Your task to perform on an android device: clear all cookies in the chrome app Image 0: 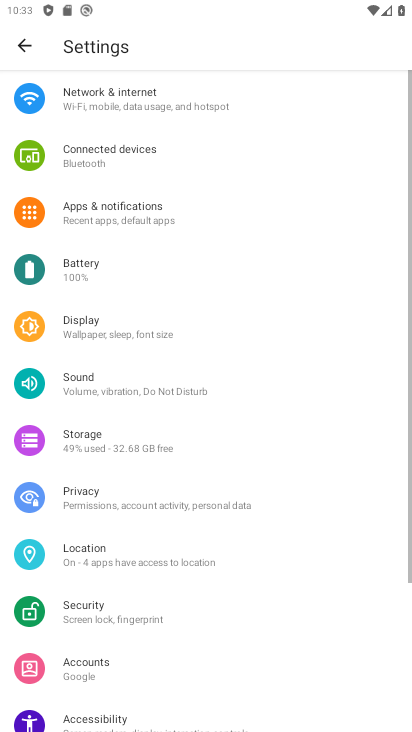
Step 0: press home button
Your task to perform on an android device: clear all cookies in the chrome app Image 1: 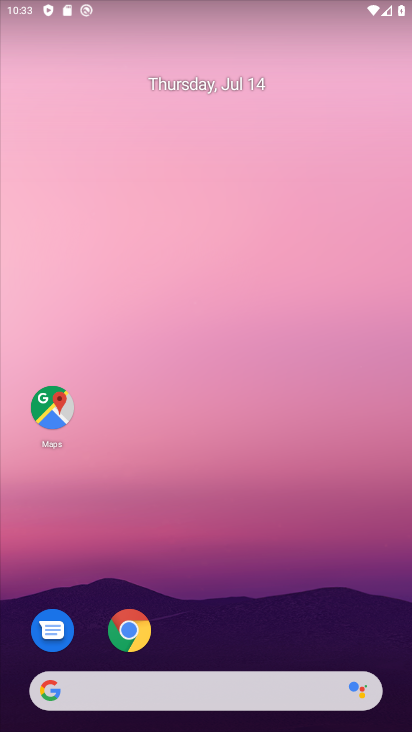
Step 1: drag from (213, 635) to (212, 185)
Your task to perform on an android device: clear all cookies in the chrome app Image 2: 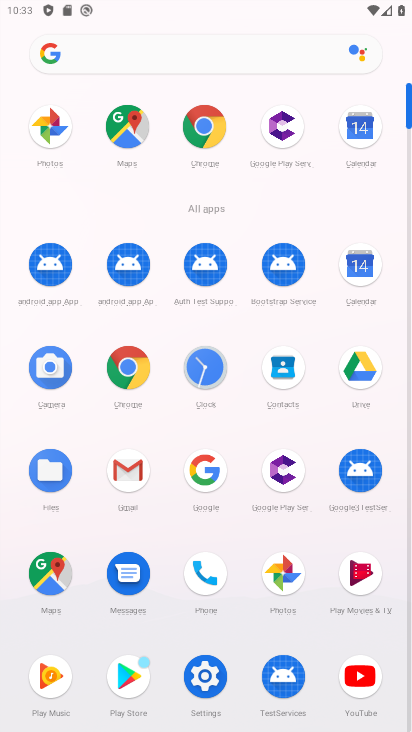
Step 2: click (120, 363)
Your task to perform on an android device: clear all cookies in the chrome app Image 3: 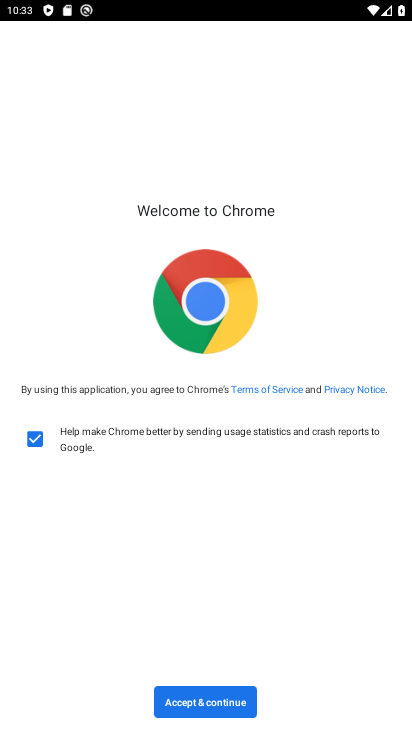
Step 3: click (189, 690)
Your task to perform on an android device: clear all cookies in the chrome app Image 4: 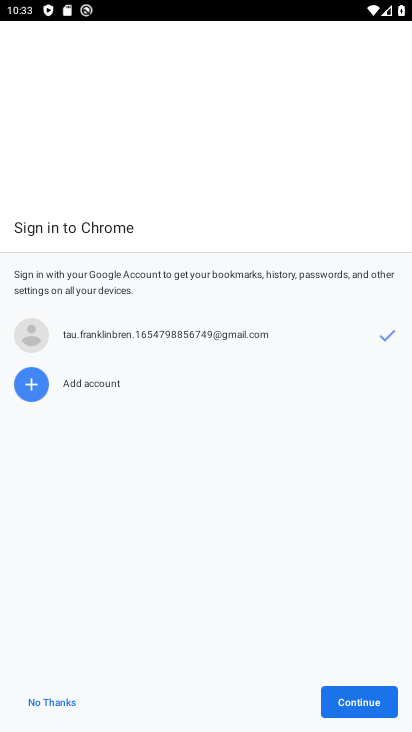
Step 4: click (199, 697)
Your task to perform on an android device: clear all cookies in the chrome app Image 5: 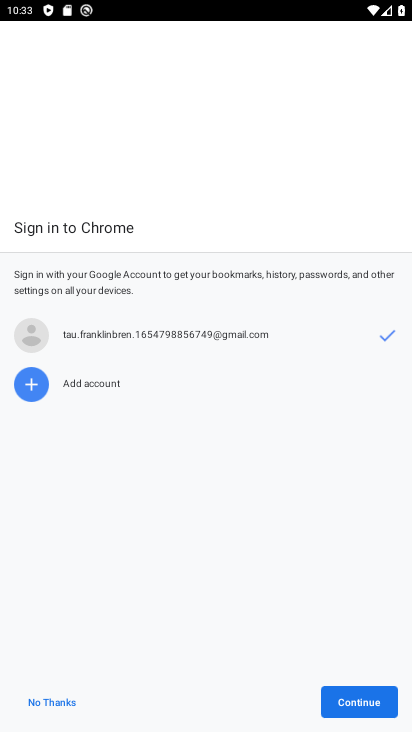
Step 5: click (347, 693)
Your task to perform on an android device: clear all cookies in the chrome app Image 6: 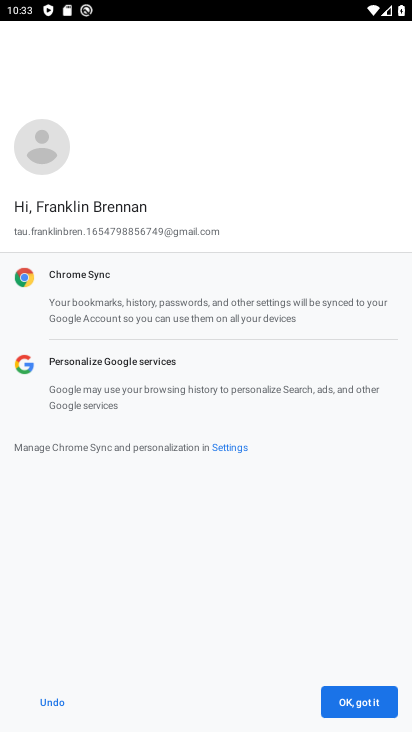
Step 6: click (356, 710)
Your task to perform on an android device: clear all cookies in the chrome app Image 7: 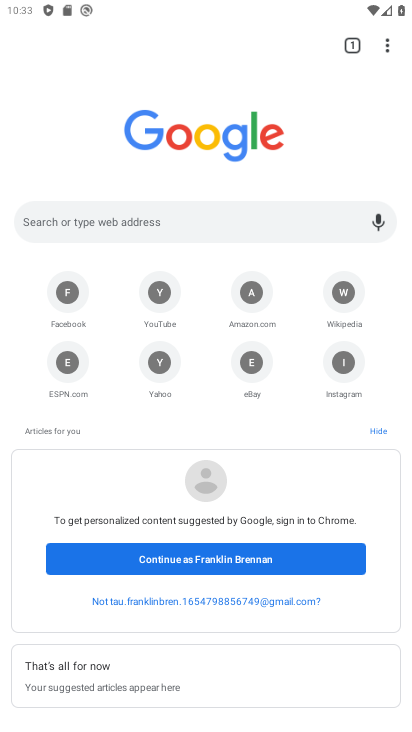
Step 7: click (392, 29)
Your task to perform on an android device: clear all cookies in the chrome app Image 8: 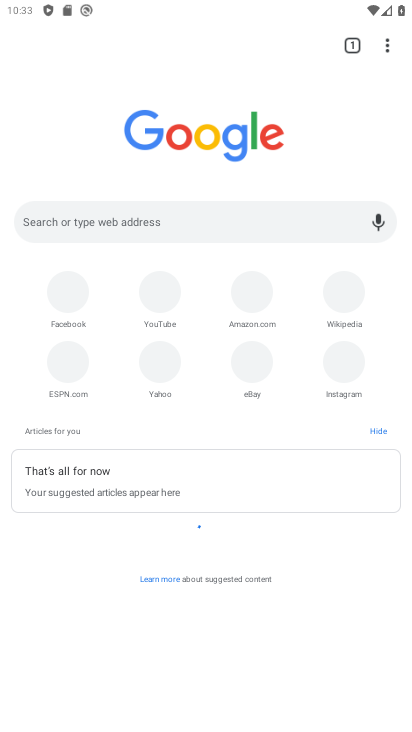
Step 8: click (388, 40)
Your task to perform on an android device: clear all cookies in the chrome app Image 9: 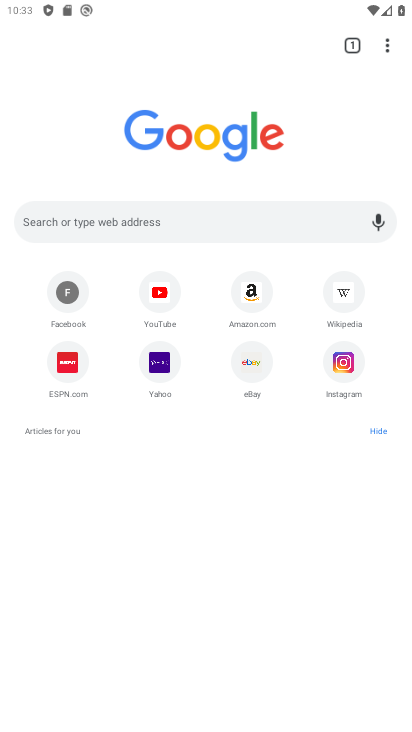
Step 9: click (388, 40)
Your task to perform on an android device: clear all cookies in the chrome app Image 10: 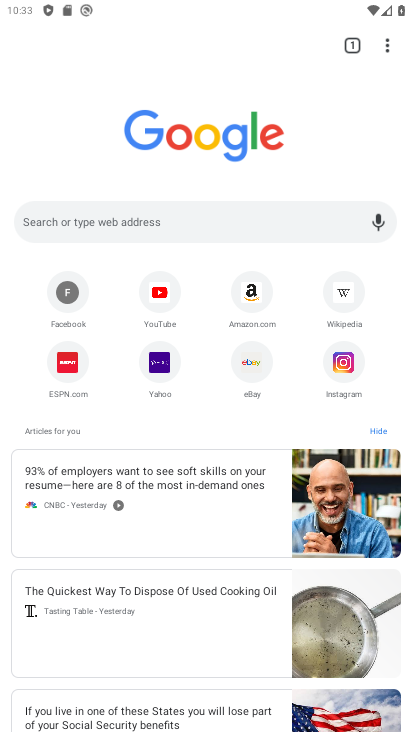
Step 10: click (388, 45)
Your task to perform on an android device: clear all cookies in the chrome app Image 11: 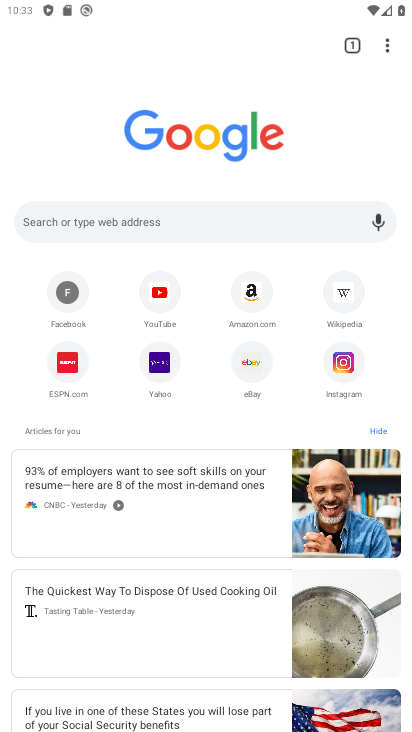
Step 11: click (388, 45)
Your task to perform on an android device: clear all cookies in the chrome app Image 12: 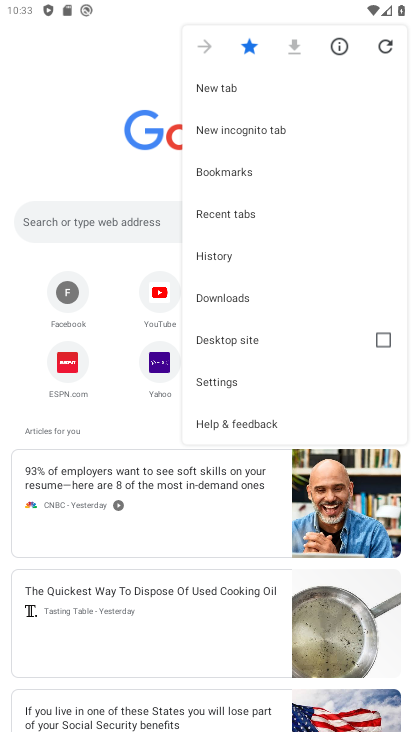
Step 12: click (236, 378)
Your task to perform on an android device: clear all cookies in the chrome app Image 13: 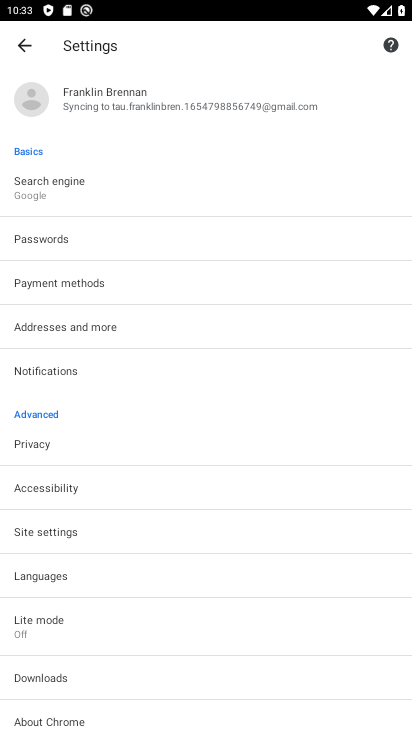
Step 13: click (59, 446)
Your task to perform on an android device: clear all cookies in the chrome app Image 14: 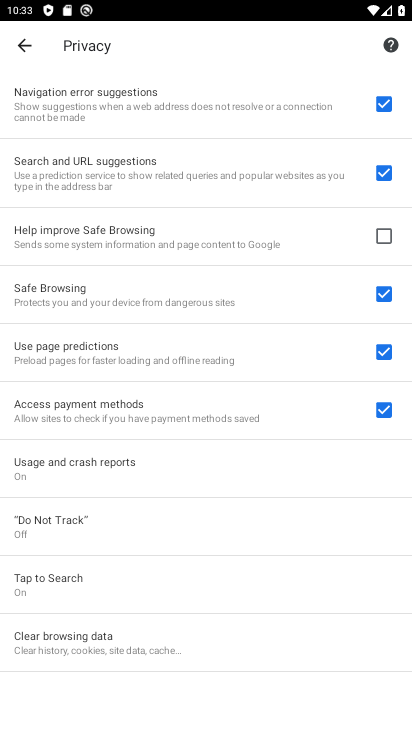
Step 14: click (119, 654)
Your task to perform on an android device: clear all cookies in the chrome app Image 15: 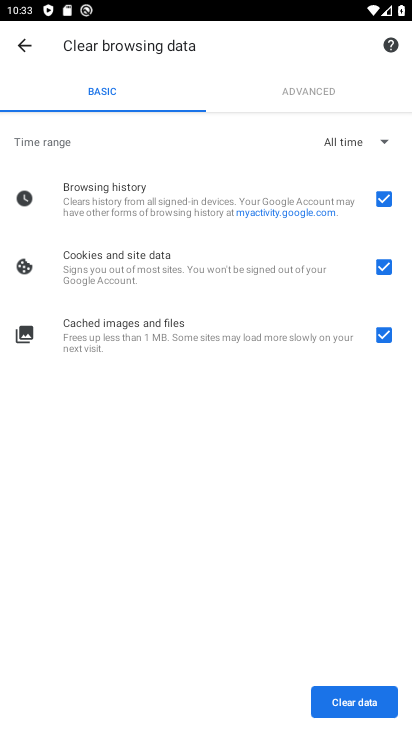
Step 15: click (342, 694)
Your task to perform on an android device: clear all cookies in the chrome app Image 16: 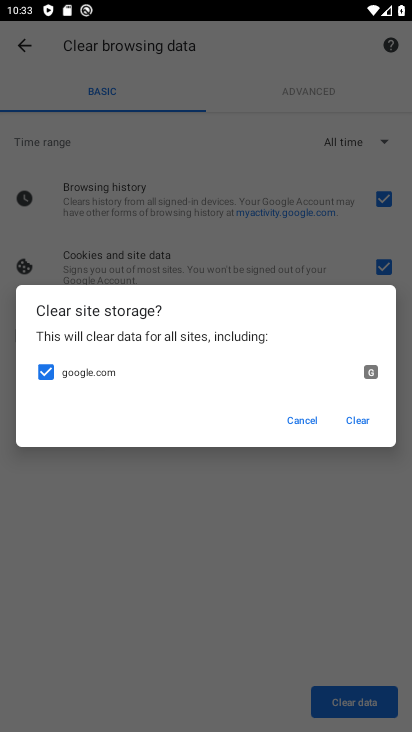
Step 16: click (358, 421)
Your task to perform on an android device: clear all cookies in the chrome app Image 17: 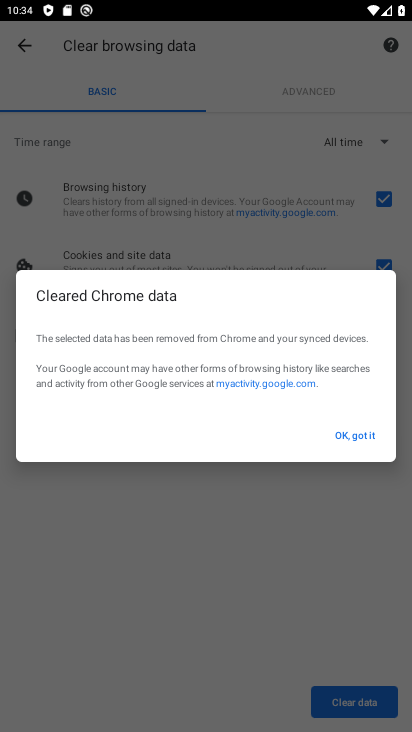
Step 17: click (351, 446)
Your task to perform on an android device: clear all cookies in the chrome app Image 18: 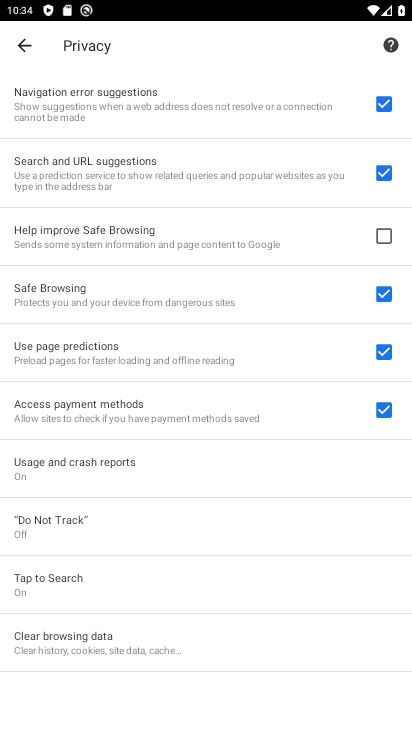
Step 18: click (179, 647)
Your task to perform on an android device: clear all cookies in the chrome app Image 19: 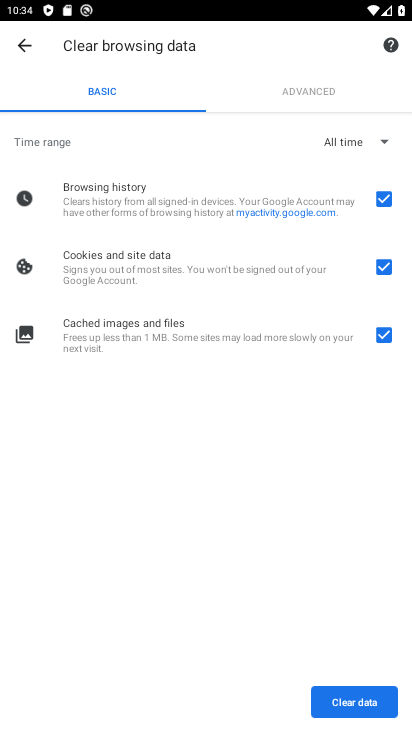
Step 19: click (362, 696)
Your task to perform on an android device: clear all cookies in the chrome app Image 20: 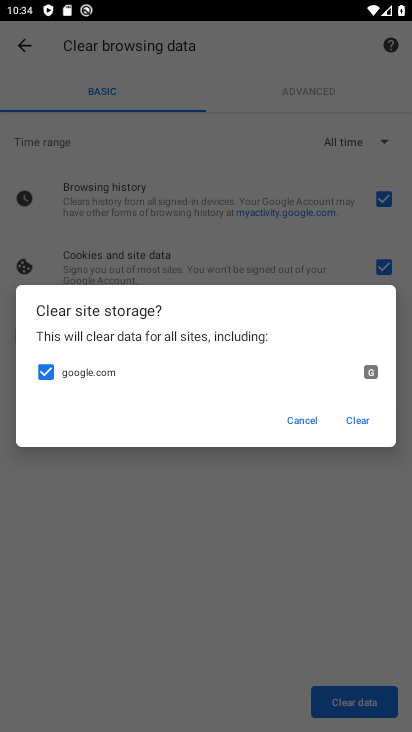
Step 20: click (356, 407)
Your task to perform on an android device: clear all cookies in the chrome app Image 21: 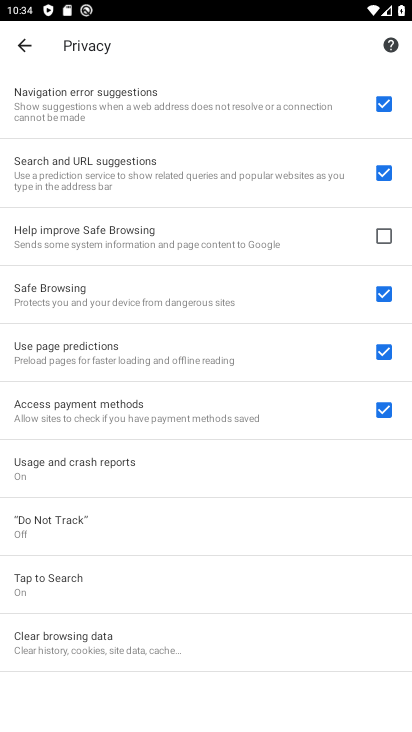
Step 21: task complete